Your task to perform on an android device: star an email in the gmail app Image 0: 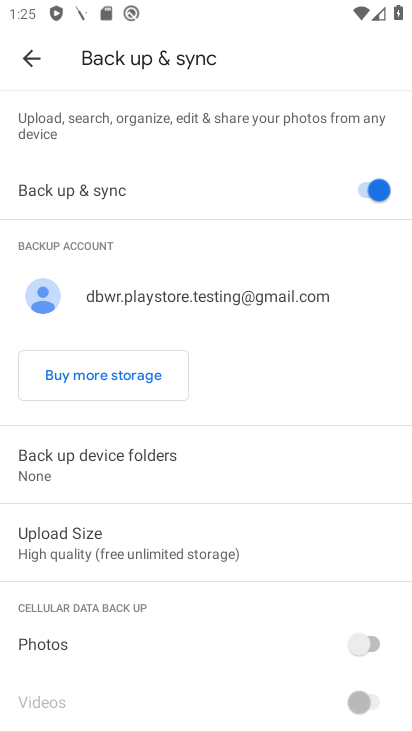
Step 0: press home button
Your task to perform on an android device: star an email in the gmail app Image 1: 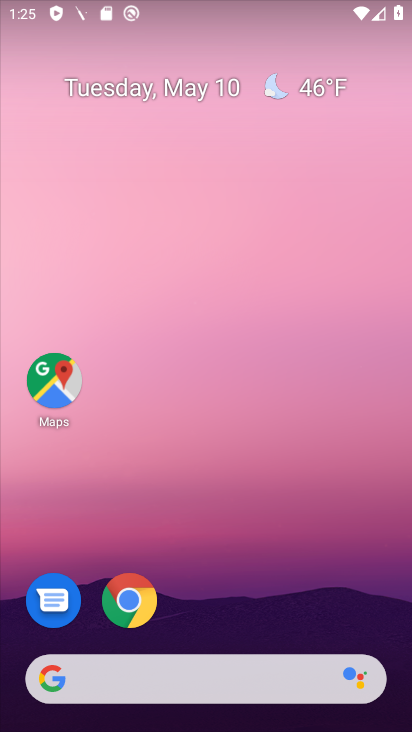
Step 1: drag from (197, 644) to (108, 49)
Your task to perform on an android device: star an email in the gmail app Image 2: 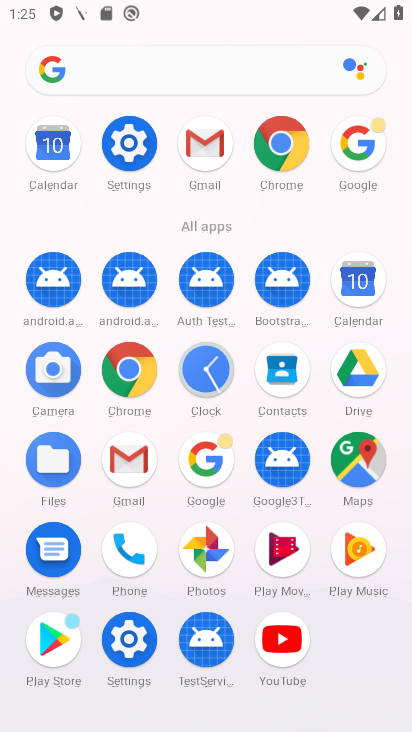
Step 2: click (115, 482)
Your task to perform on an android device: star an email in the gmail app Image 3: 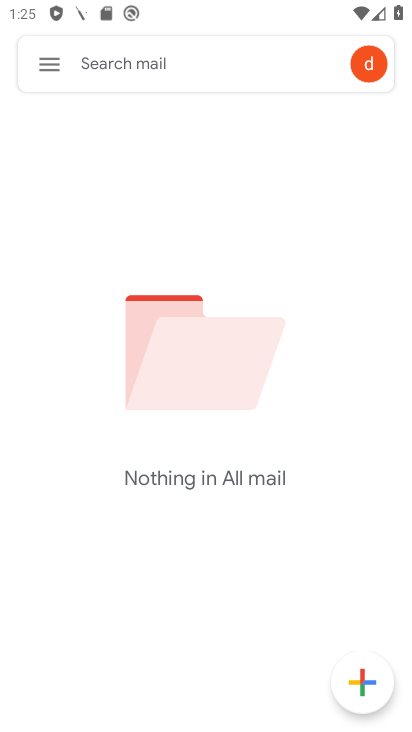
Step 3: click (46, 53)
Your task to perform on an android device: star an email in the gmail app Image 4: 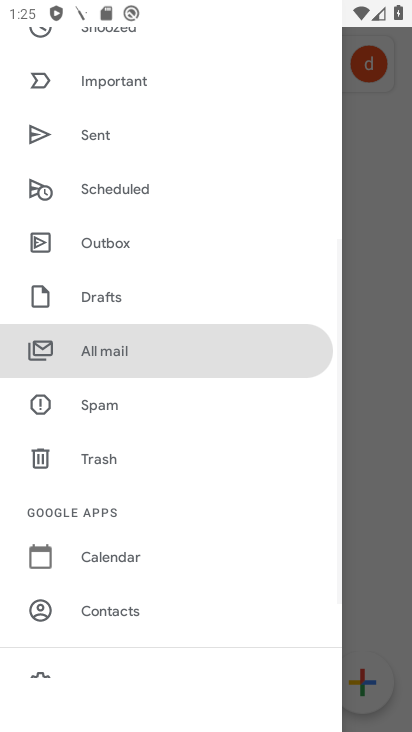
Step 4: click (156, 348)
Your task to perform on an android device: star an email in the gmail app Image 5: 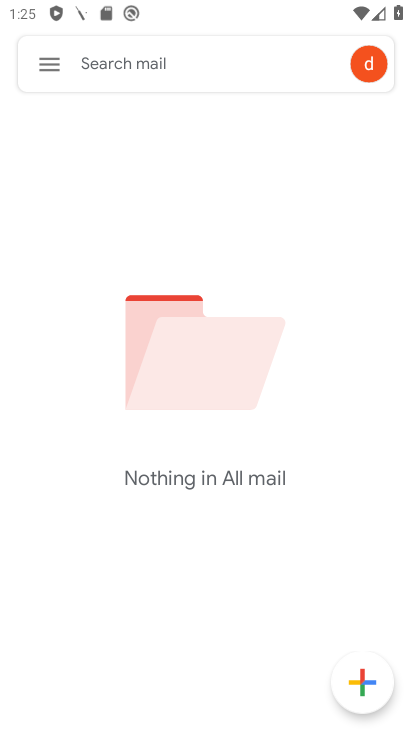
Step 5: task complete